Your task to perform on an android device: check android version Image 0: 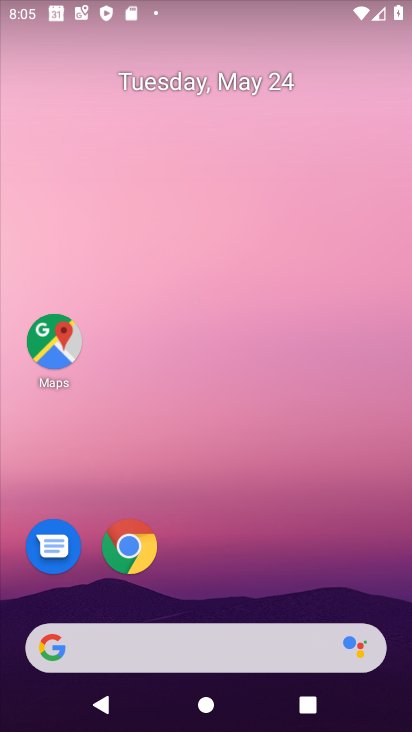
Step 0: drag from (215, 569) to (226, 1)
Your task to perform on an android device: check android version Image 1: 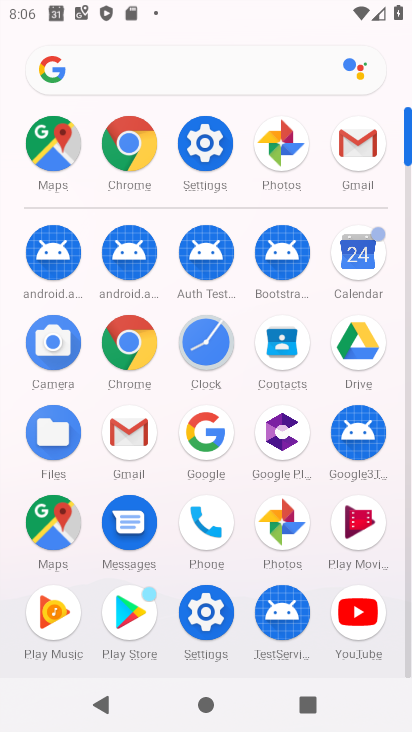
Step 1: click (199, 147)
Your task to perform on an android device: check android version Image 2: 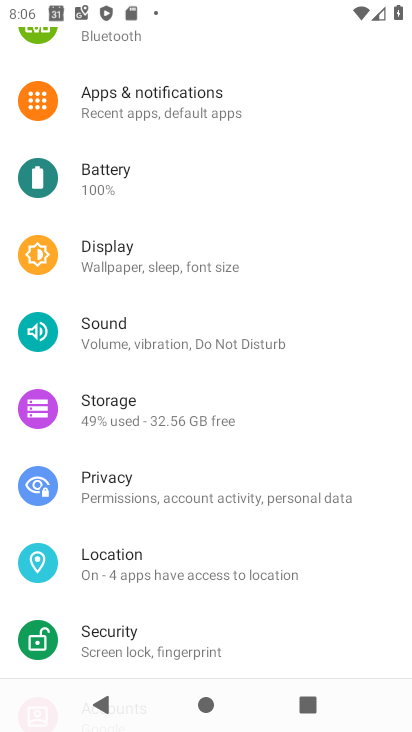
Step 2: drag from (230, 644) to (305, 47)
Your task to perform on an android device: check android version Image 3: 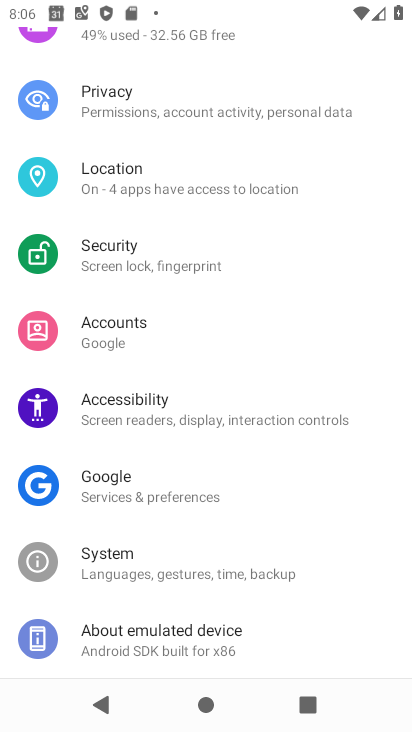
Step 3: click (227, 644)
Your task to perform on an android device: check android version Image 4: 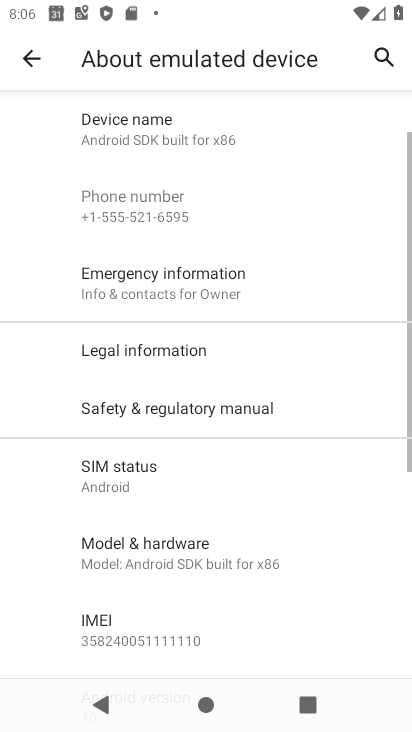
Step 4: drag from (255, 589) to (280, 206)
Your task to perform on an android device: check android version Image 5: 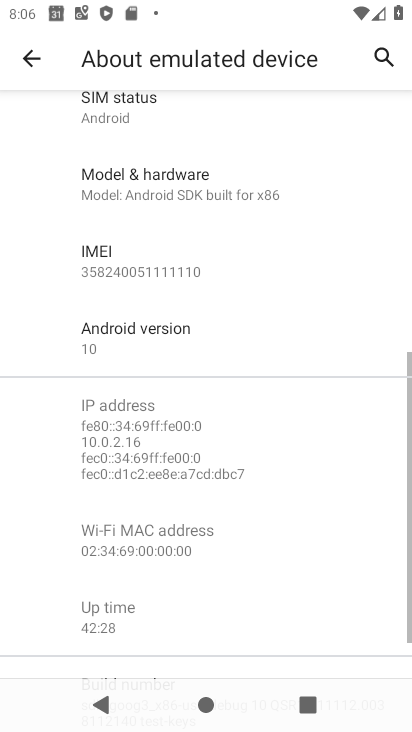
Step 5: click (232, 343)
Your task to perform on an android device: check android version Image 6: 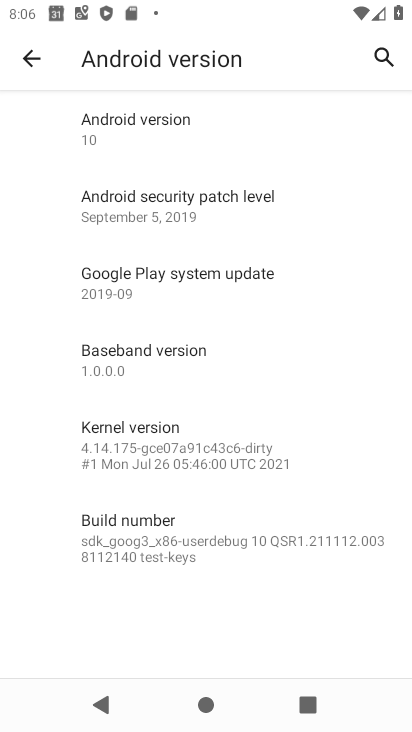
Step 6: task complete